Your task to perform on an android device: Open Android settings Image 0: 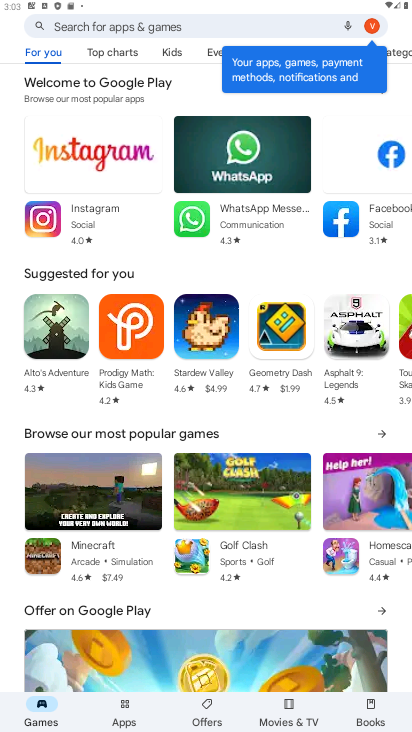
Step 0: press home button
Your task to perform on an android device: Open Android settings Image 1: 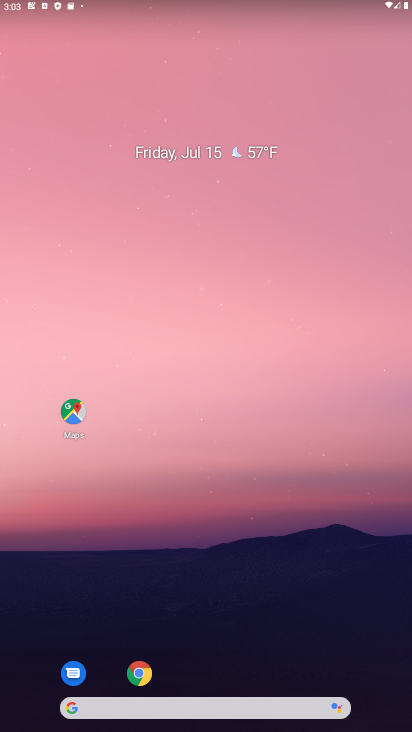
Step 1: drag from (373, 670) to (328, 157)
Your task to perform on an android device: Open Android settings Image 2: 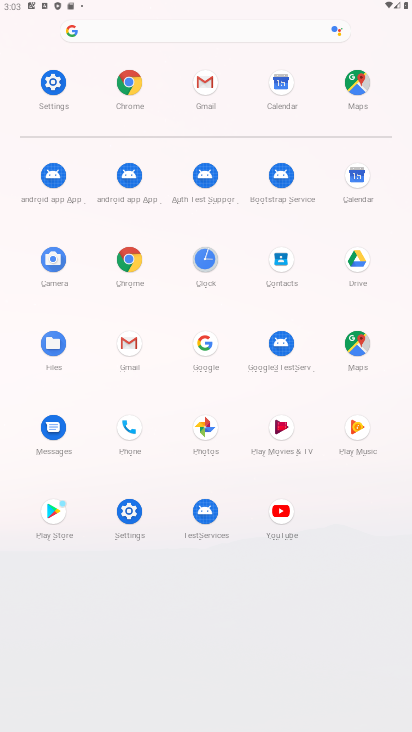
Step 2: click (129, 510)
Your task to perform on an android device: Open Android settings Image 3: 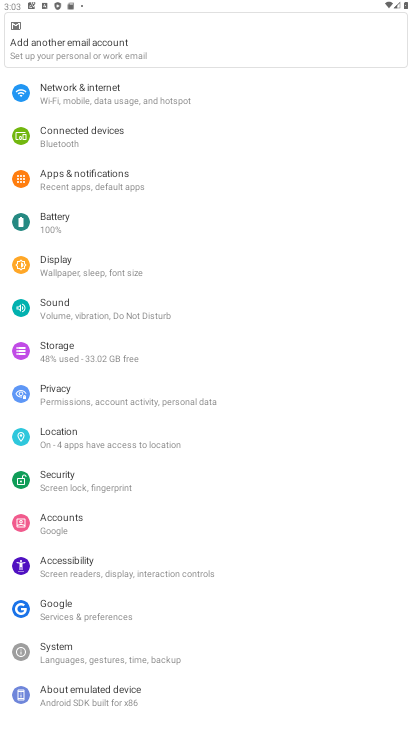
Step 3: click (111, 703)
Your task to perform on an android device: Open Android settings Image 4: 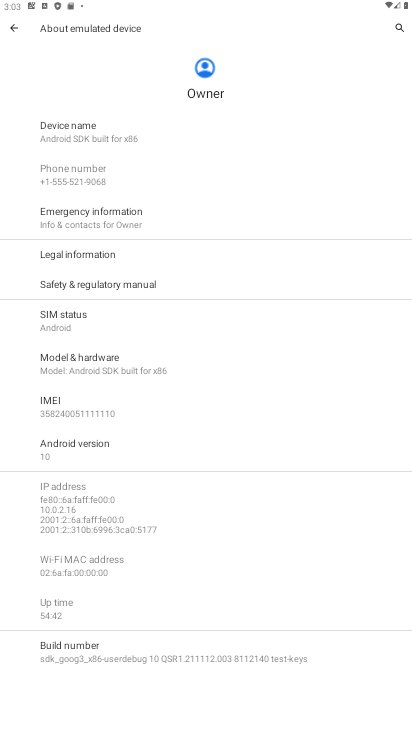
Step 4: task complete